Your task to perform on an android device: turn off improve location accuracy Image 0: 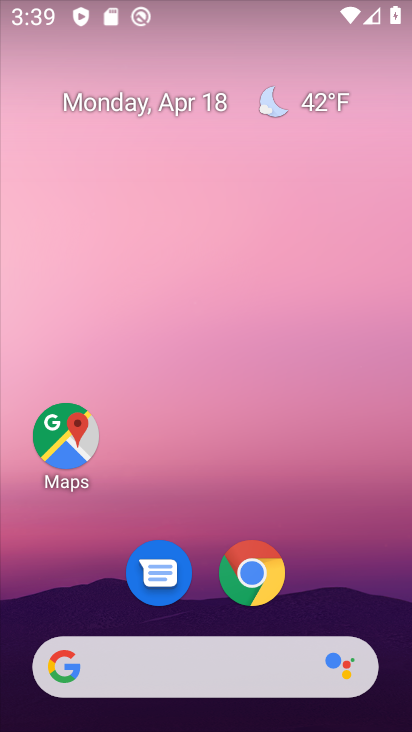
Step 0: drag from (191, 636) to (191, 208)
Your task to perform on an android device: turn off improve location accuracy Image 1: 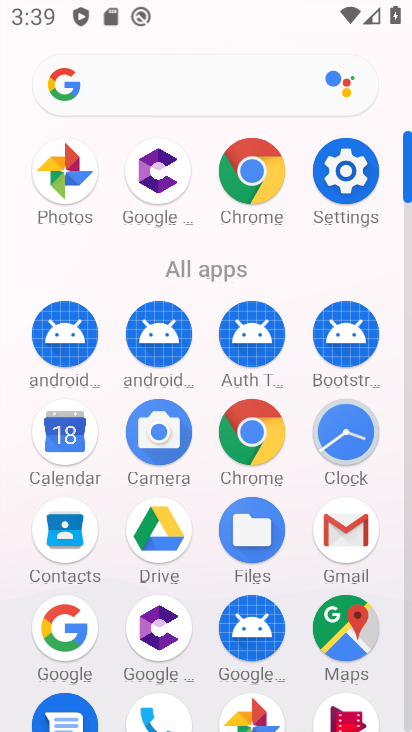
Step 1: click (342, 173)
Your task to perform on an android device: turn off improve location accuracy Image 2: 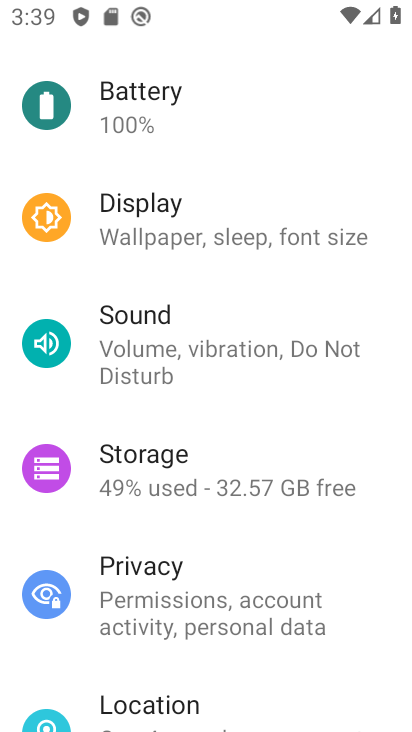
Step 2: click (176, 708)
Your task to perform on an android device: turn off improve location accuracy Image 3: 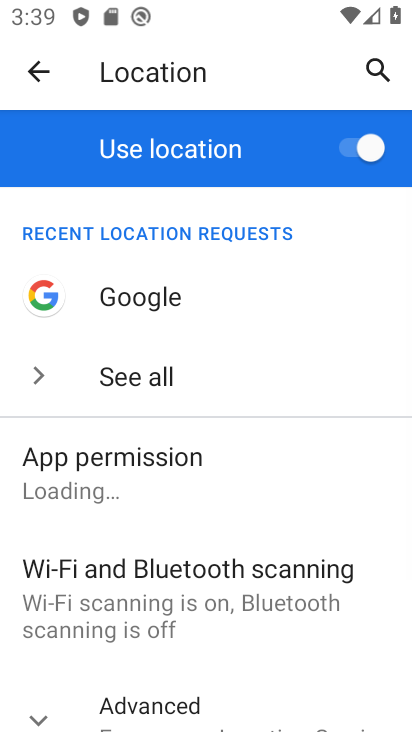
Step 3: drag from (196, 710) to (179, 406)
Your task to perform on an android device: turn off improve location accuracy Image 4: 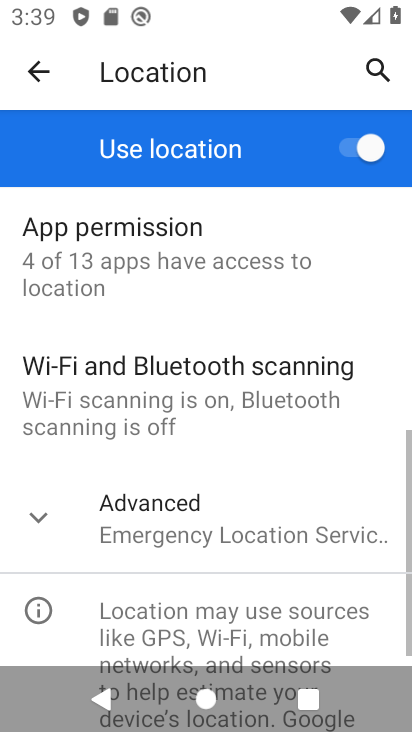
Step 4: click (157, 524)
Your task to perform on an android device: turn off improve location accuracy Image 5: 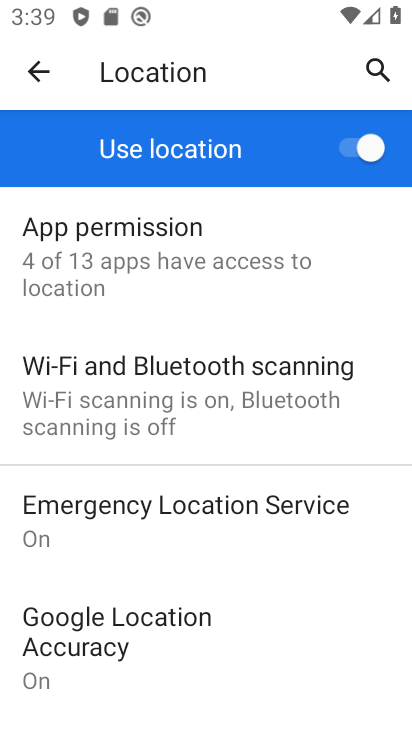
Step 5: click (80, 653)
Your task to perform on an android device: turn off improve location accuracy Image 6: 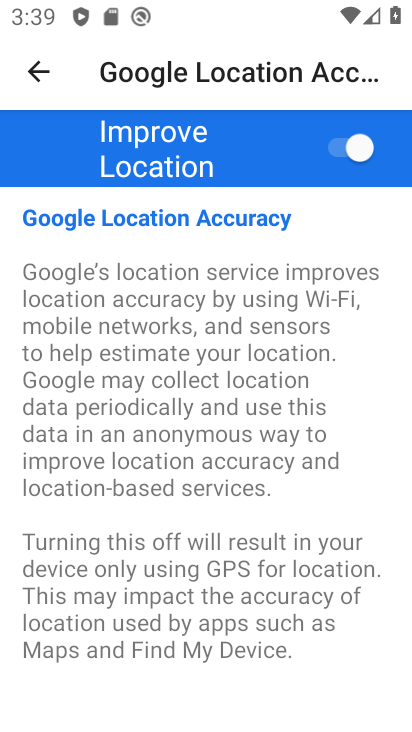
Step 6: click (330, 142)
Your task to perform on an android device: turn off improve location accuracy Image 7: 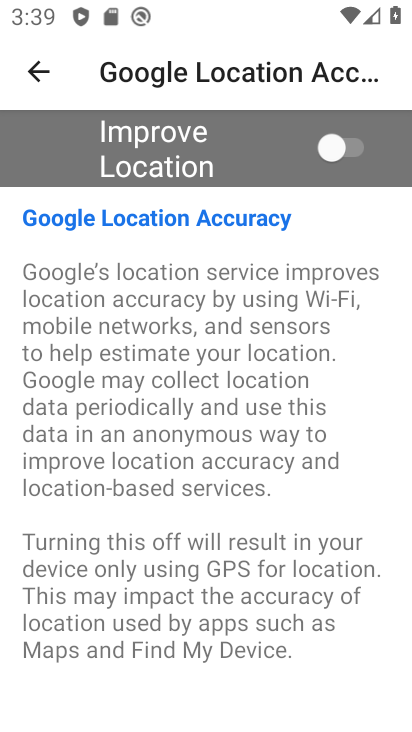
Step 7: task complete